Your task to perform on an android device: empty trash in google photos Image 0: 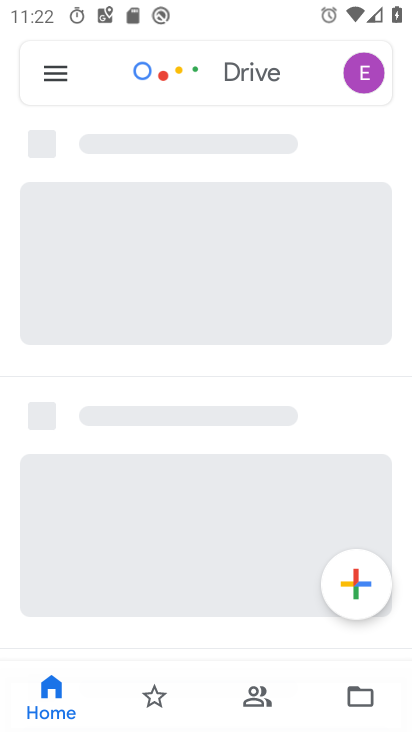
Step 0: press home button
Your task to perform on an android device: empty trash in google photos Image 1: 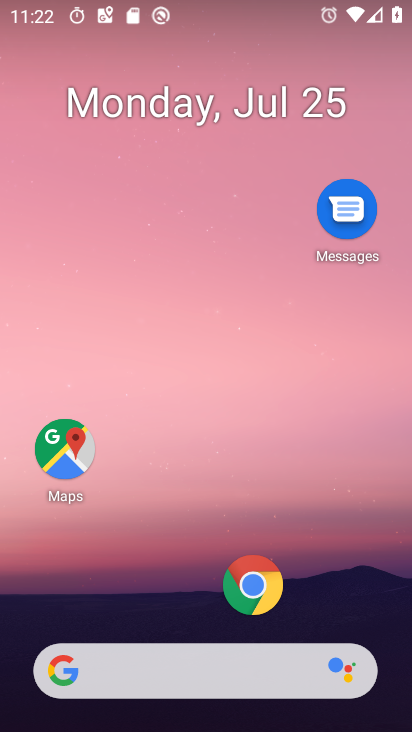
Step 1: drag from (159, 653) to (323, 23)
Your task to perform on an android device: empty trash in google photos Image 2: 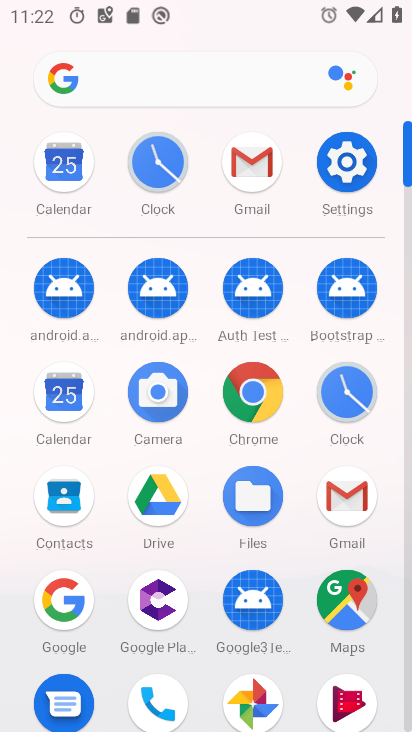
Step 2: drag from (204, 540) to (282, 113)
Your task to perform on an android device: empty trash in google photos Image 3: 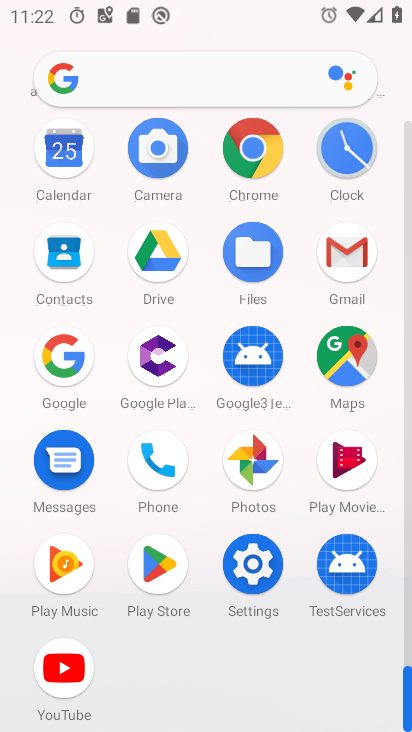
Step 3: click (256, 466)
Your task to perform on an android device: empty trash in google photos Image 4: 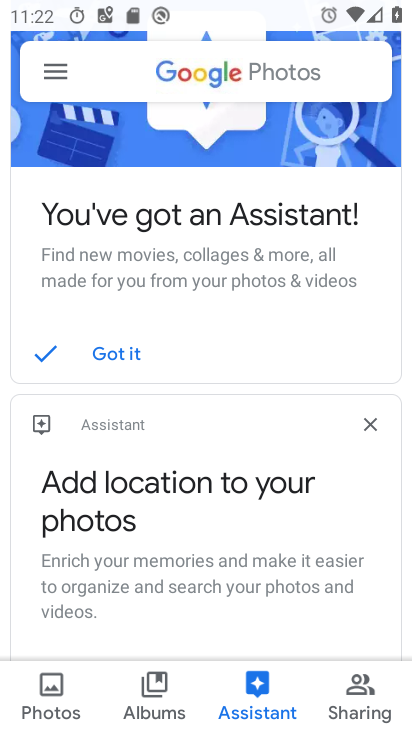
Step 4: click (45, 75)
Your task to perform on an android device: empty trash in google photos Image 5: 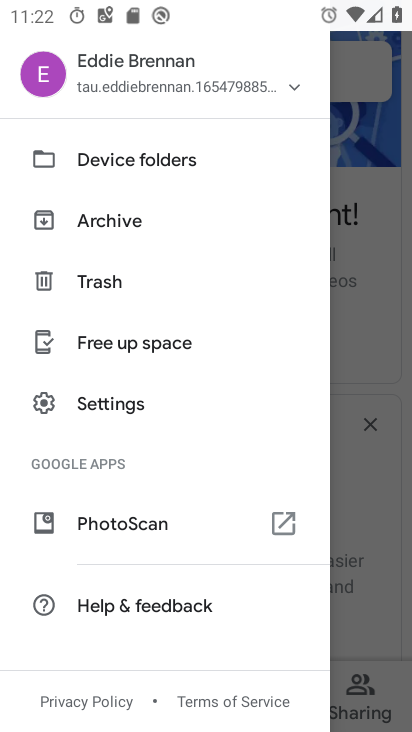
Step 5: click (115, 279)
Your task to perform on an android device: empty trash in google photos Image 6: 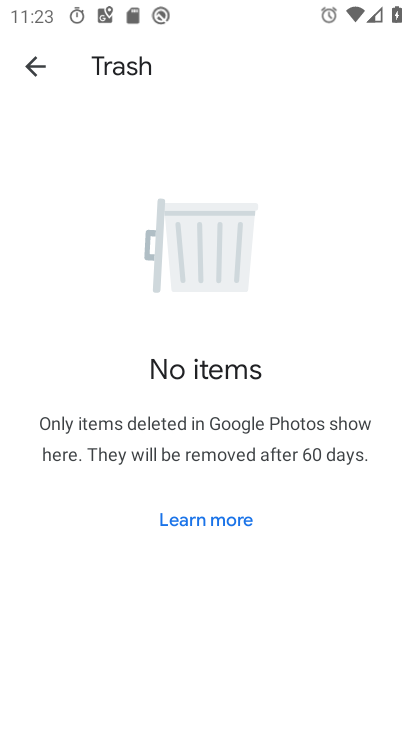
Step 6: task complete